Your task to perform on an android device: set default search engine in the chrome app Image 0: 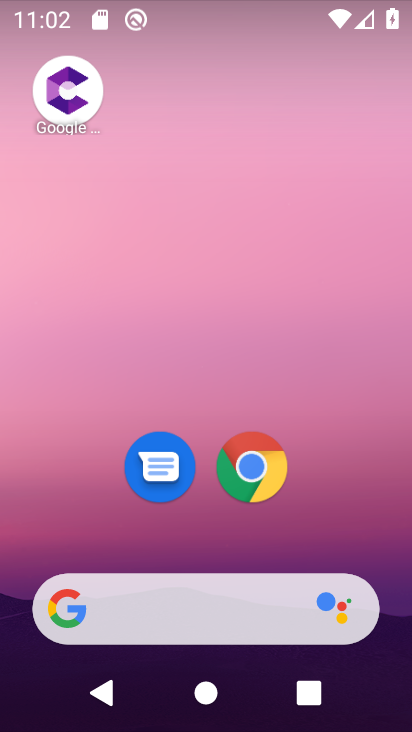
Step 0: click (264, 472)
Your task to perform on an android device: set default search engine in the chrome app Image 1: 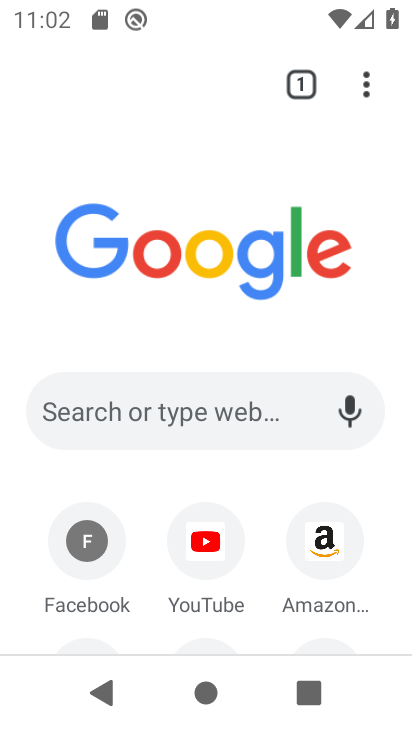
Step 1: click (374, 87)
Your task to perform on an android device: set default search engine in the chrome app Image 2: 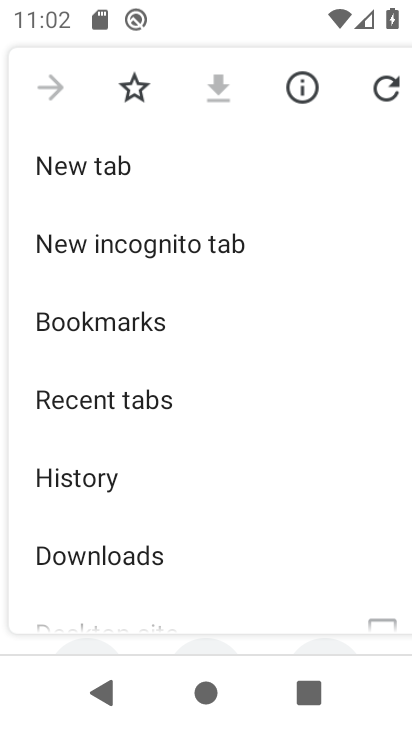
Step 2: drag from (180, 558) to (212, 239)
Your task to perform on an android device: set default search engine in the chrome app Image 3: 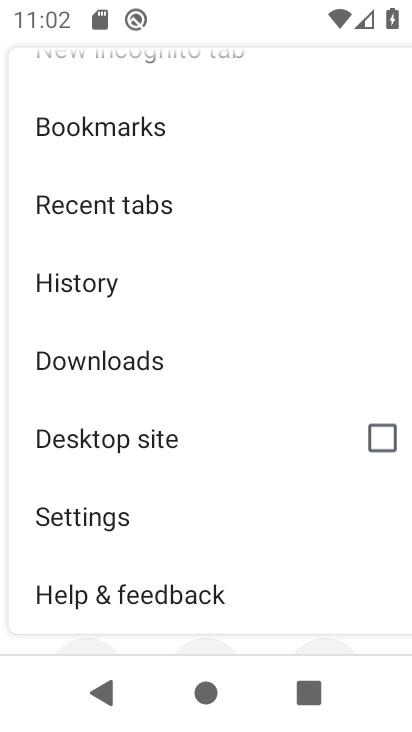
Step 3: click (202, 512)
Your task to perform on an android device: set default search engine in the chrome app Image 4: 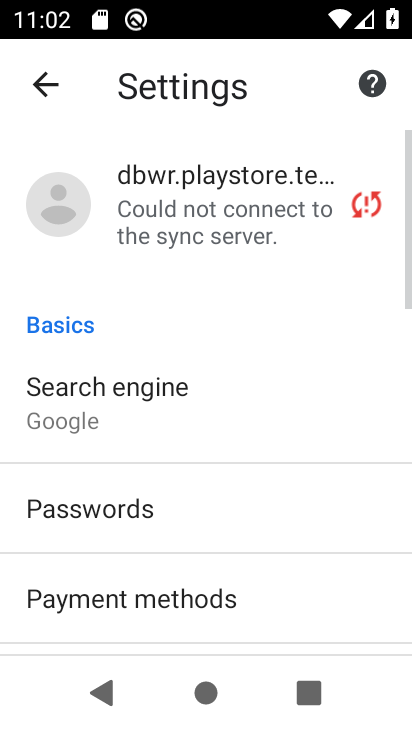
Step 4: click (185, 396)
Your task to perform on an android device: set default search engine in the chrome app Image 5: 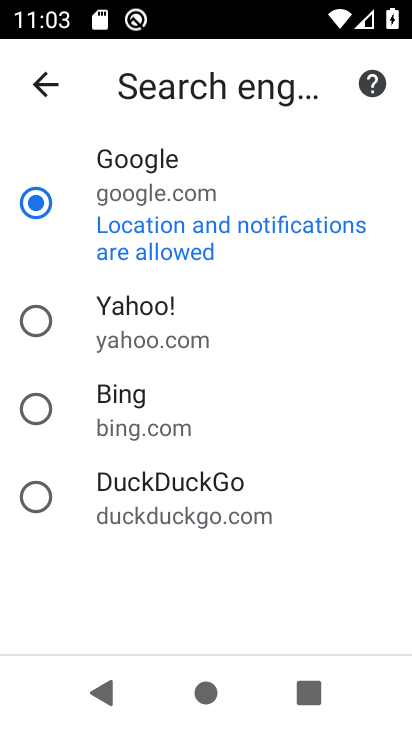
Step 5: click (147, 164)
Your task to perform on an android device: set default search engine in the chrome app Image 6: 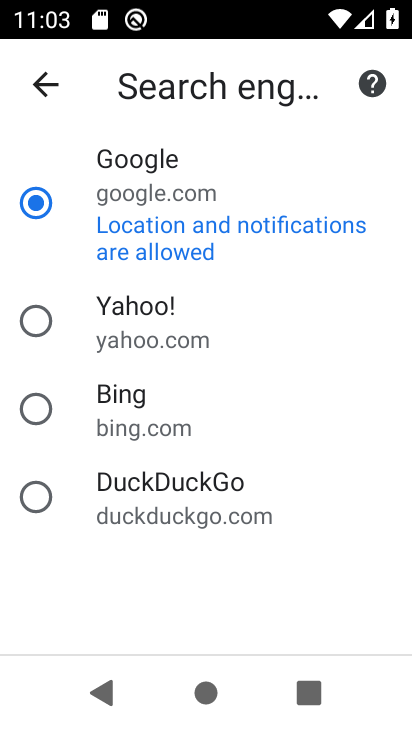
Step 6: task complete